Your task to perform on an android device: open chrome and create a bookmark for the current page Image 0: 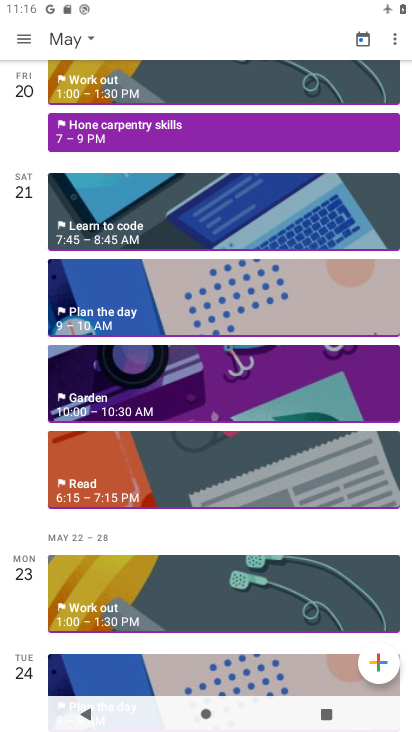
Step 0: press home button
Your task to perform on an android device: open chrome and create a bookmark for the current page Image 1: 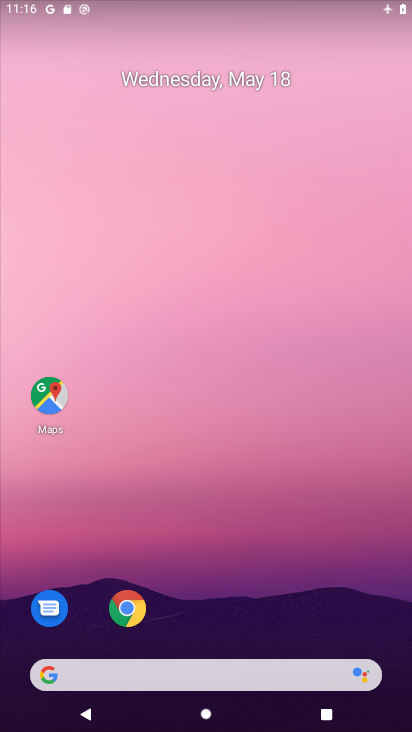
Step 1: click (123, 600)
Your task to perform on an android device: open chrome and create a bookmark for the current page Image 2: 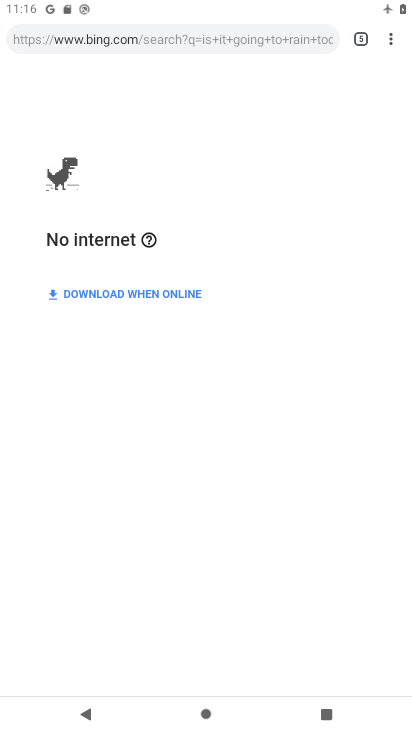
Step 2: click (391, 37)
Your task to perform on an android device: open chrome and create a bookmark for the current page Image 3: 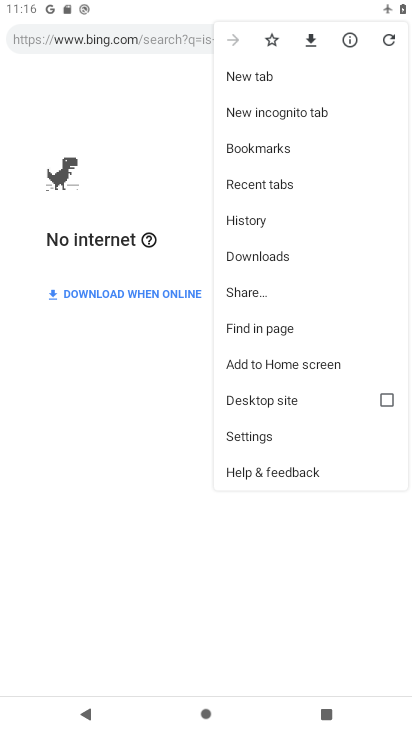
Step 3: click (271, 41)
Your task to perform on an android device: open chrome and create a bookmark for the current page Image 4: 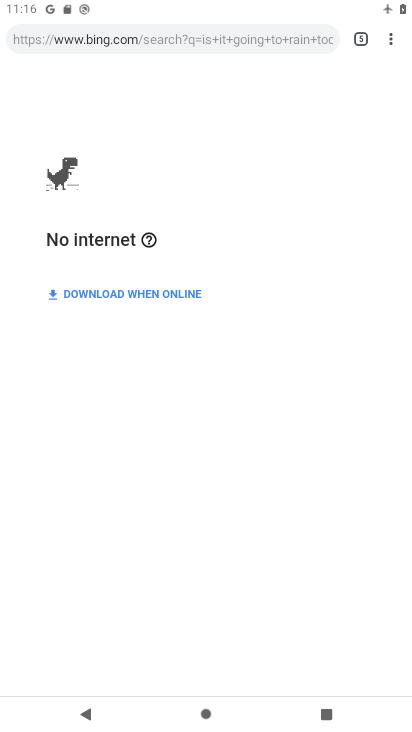
Step 4: task complete